Your task to perform on an android device: What is the recent news? Image 0: 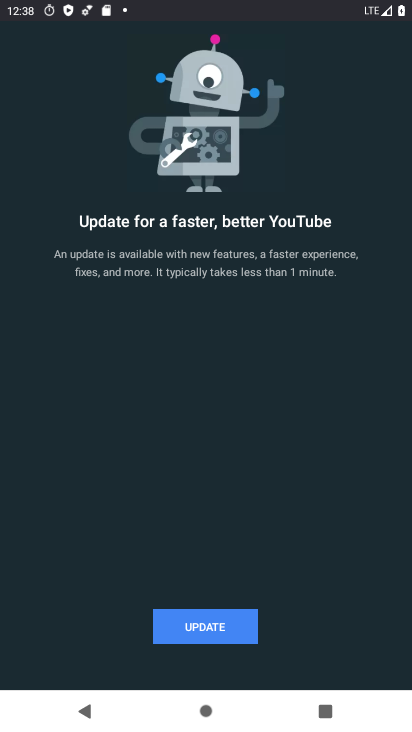
Step 0: press home button
Your task to perform on an android device: What is the recent news? Image 1: 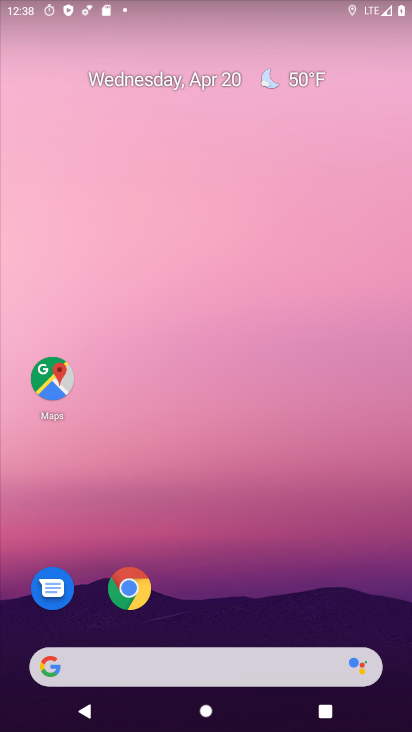
Step 1: task complete